Your task to perform on an android device: What's the weather going to be this weekend? Image 0: 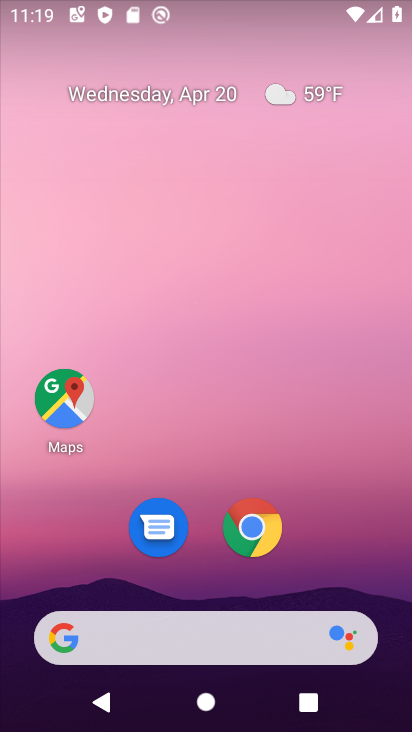
Step 0: drag from (372, 550) to (344, 170)
Your task to perform on an android device: What's the weather going to be this weekend? Image 1: 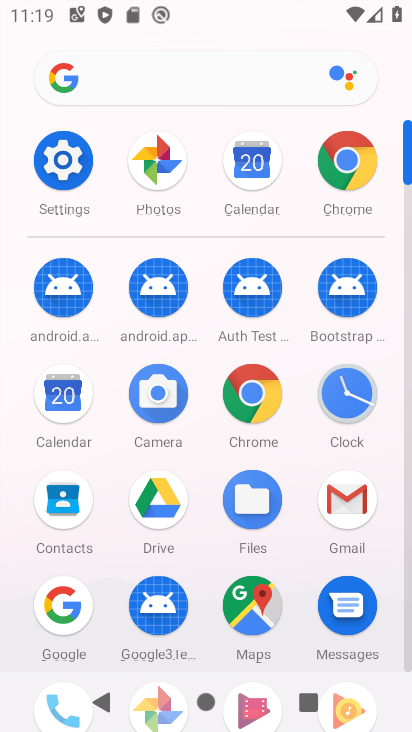
Step 1: click (232, 390)
Your task to perform on an android device: What's the weather going to be this weekend? Image 2: 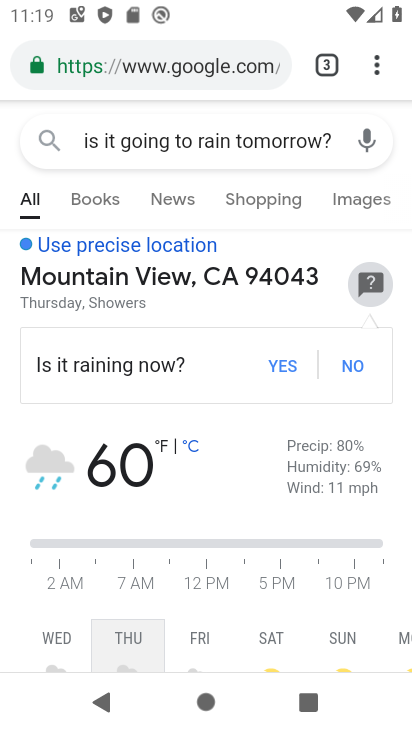
Step 2: click (286, 141)
Your task to perform on an android device: What's the weather going to be this weekend? Image 3: 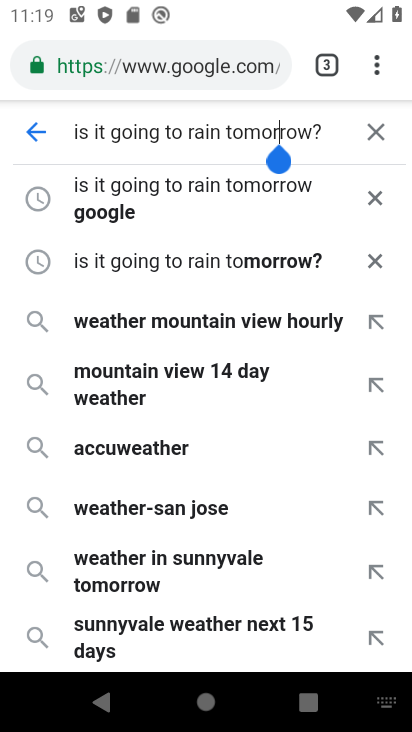
Step 3: click (384, 130)
Your task to perform on an android device: What's the weather going to be this weekend? Image 4: 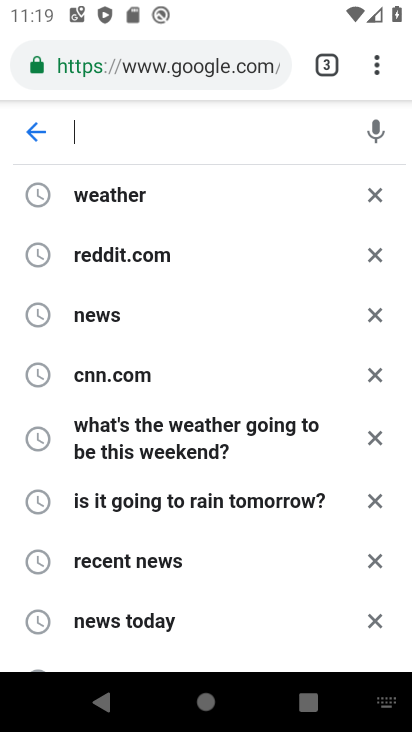
Step 4: type "what's the weather going to be this weekend"
Your task to perform on an android device: What's the weather going to be this weekend? Image 5: 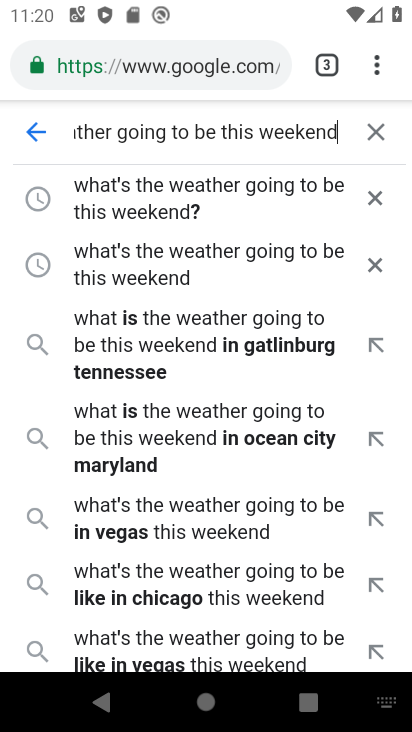
Step 5: click (200, 194)
Your task to perform on an android device: What's the weather going to be this weekend? Image 6: 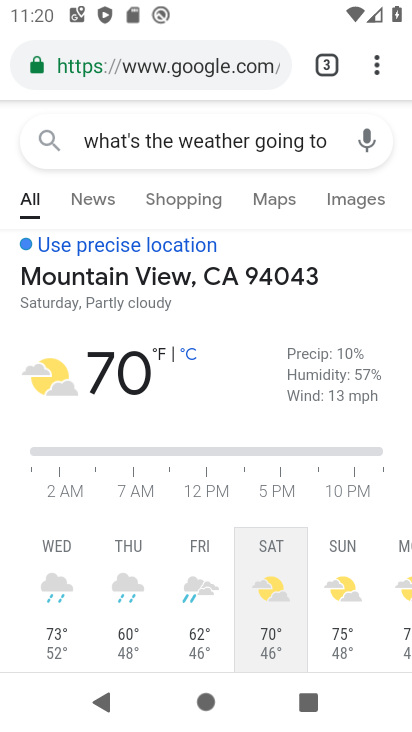
Step 6: task complete